Your task to perform on an android device: see sites visited before in the chrome app Image 0: 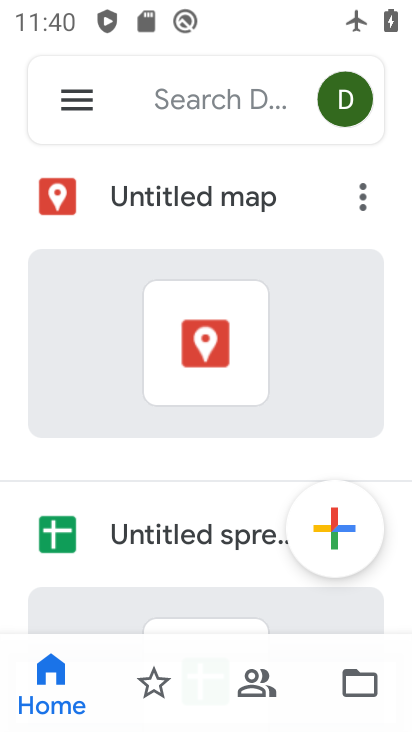
Step 0: press home button
Your task to perform on an android device: see sites visited before in the chrome app Image 1: 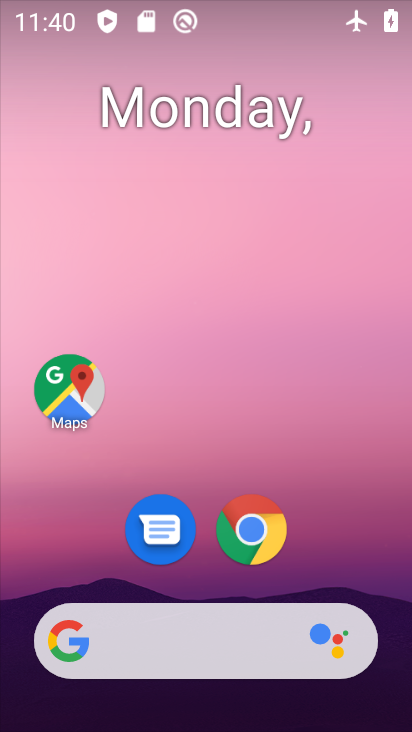
Step 1: click (254, 530)
Your task to perform on an android device: see sites visited before in the chrome app Image 2: 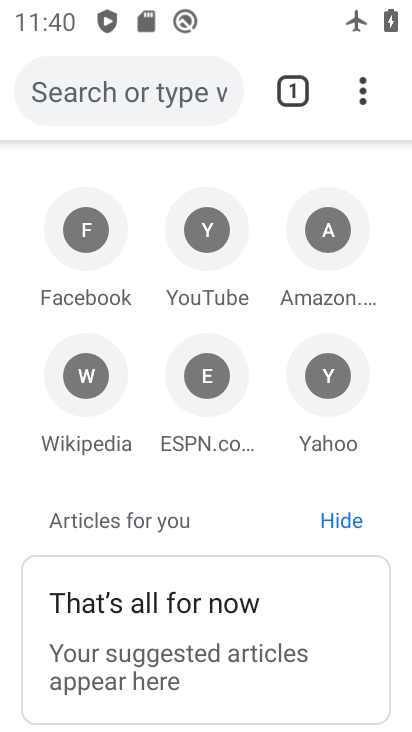
Step 2: click (362, 99)
Your task to perform on an android device: see sites visited before in the chrome app Image 3: 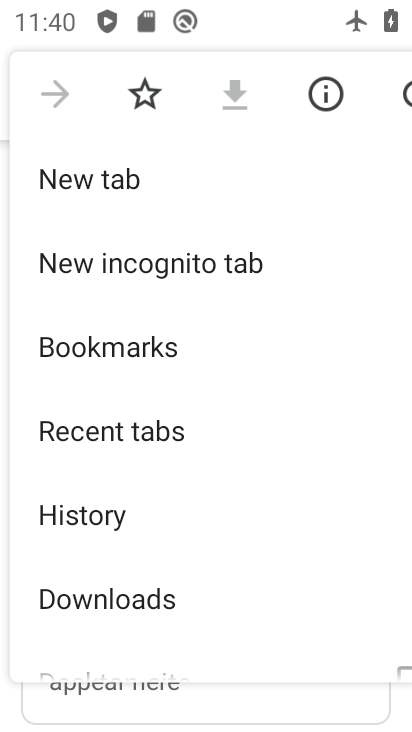
Step 3: drag from (147, 620) to (116, 163)
Your task to perform on an android device: see sites visited before in the chrome app Image 4: 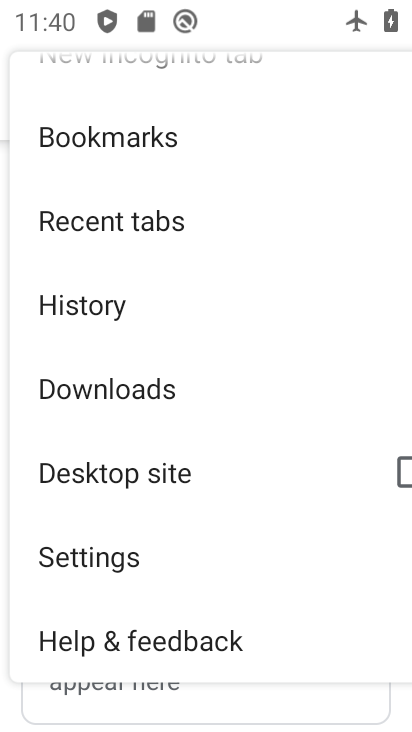
Step 4: click (94, 307)
Your task to perform on an android device: see sites visited before in the chrome app Image 5: 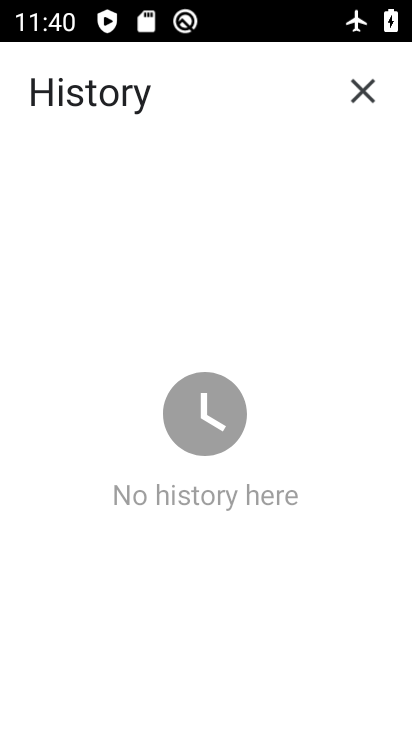
Step 5: task complete